Your task to perform on an android device: Search for the best selling jewelry on Etsy. Image 0: 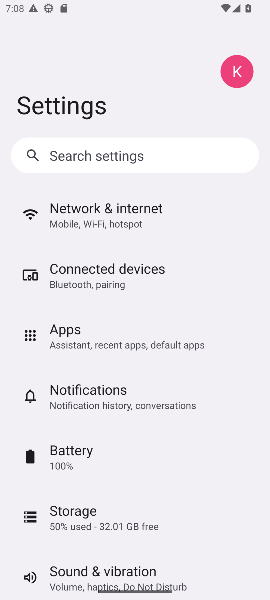
Step 0: press home button
Your task to perform on an android device: Search for the best selling jewelry on Etsy. Image 1: 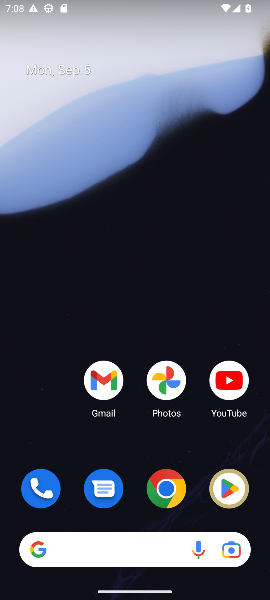
Step 1: click (171, 490)
Your task to perform on an android device: Search for the best selling jewelry on Etsy. Image 2: 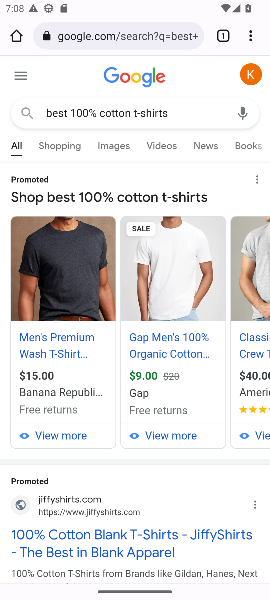
Step 2: click (141, 26)
Your task to perform on an android device: Search for the best selling jewelry on Etsy. Image 3: 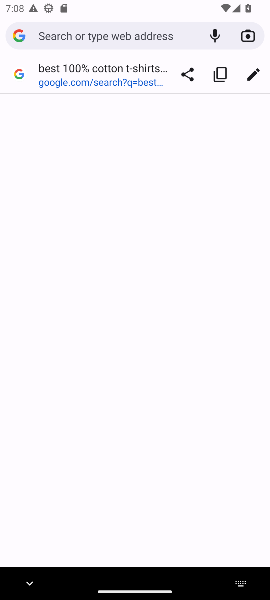
Step 3: type "etsy"
Your task to perform on an android device: Search for the best selling jewelry on Etsy. Image 4: 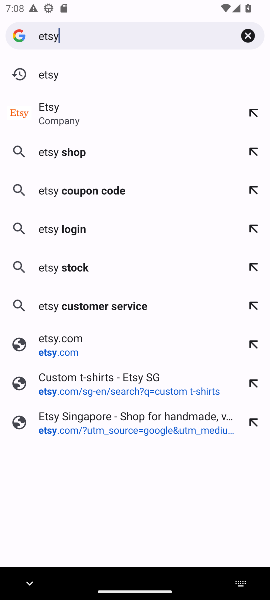
Step 4: press enter
Your task to perform on an android device: Search for the best selling jewelry on Etsy. Image 5: 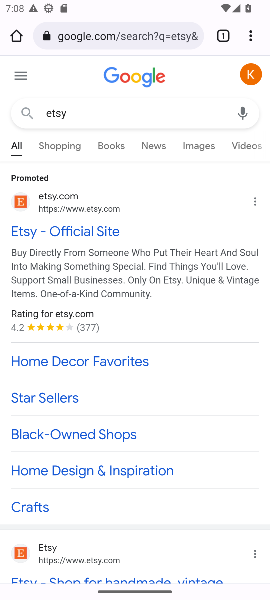
Step 5: click (41, 230)
Your task to perform on an android device: Search for the best selling jewelry on Etsy. Image 6: 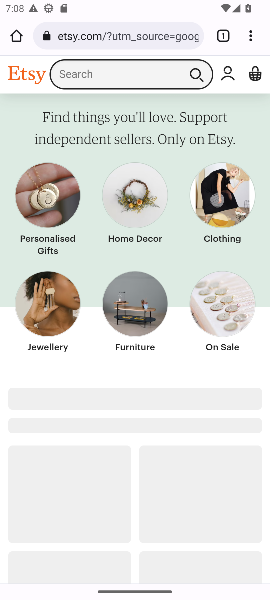
Step 6: click (118, 78)
Your task to perform on an android device: Search for the best selling jewelry on Etsy. Image 7: 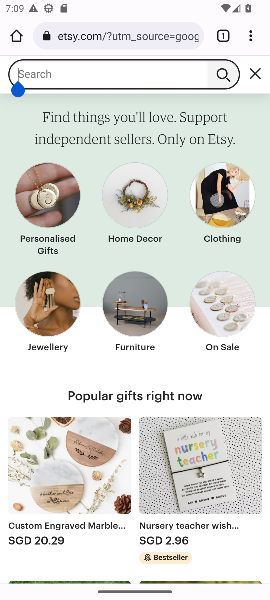
Step 7: type "best selling jewelry"
Your task to perform on an android device: Search for the best selling jewelry on Etsy. Image 8: 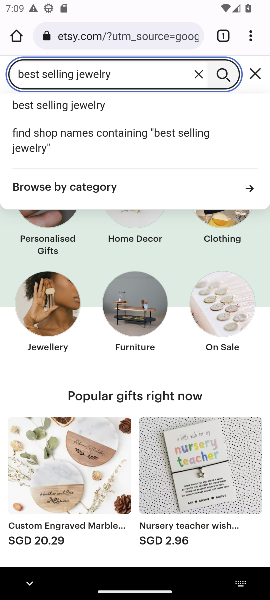
Step 8: press enter
Your task to perform on an android device: Search for the best selling jewelry on Etsy. Image 9: 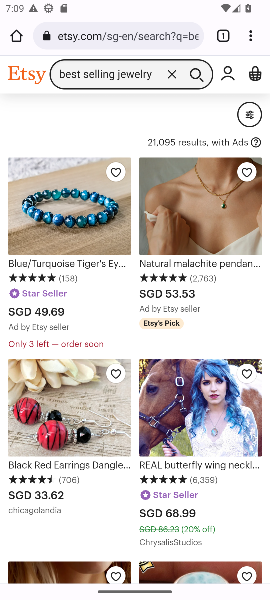
Step 9: click (251, 114)
Your task to perform on an android device: Search for the best selling jewelry on Etsy. Image 10: 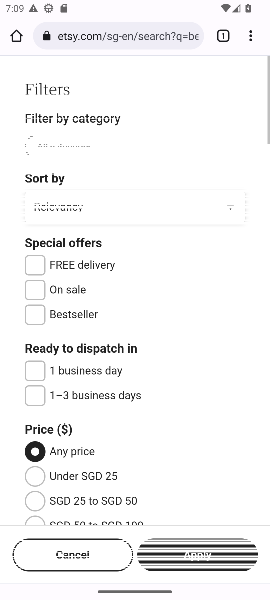
Step 10: drag from (150, 454) to (162, 299)
Your task to perform on an android device: Search for the best selling jewelry on Etsy. Image 11: 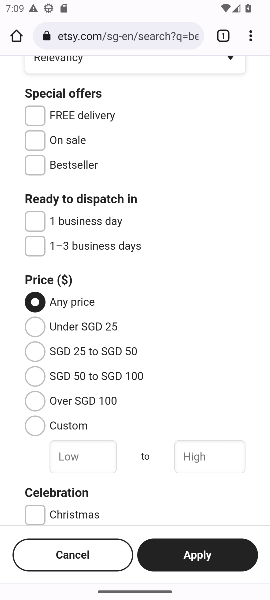
Step 11: click (37, 161)
Your task to perform on an android device: Search for the best selling jewelry on Etsy. Image 12: 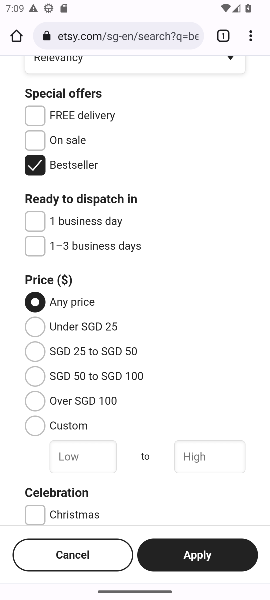
Step 12: click (216, 566)
Your task to perform on an android device: Search for the best selling jewelry on Etsy. Image 13: 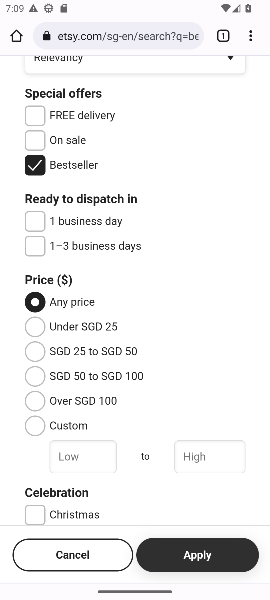
Step 13: click (220, 554)
Your task to perform on an android device: Search for the best selling jewelry on Etsy. Image 14: 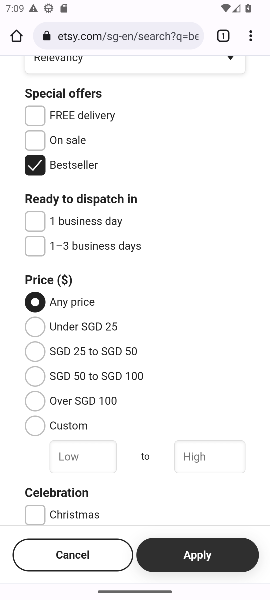
Step 14: click (202, 567)
Your task to perform on an android device: Search for the best selling jewelry on Etsy. Image 15: 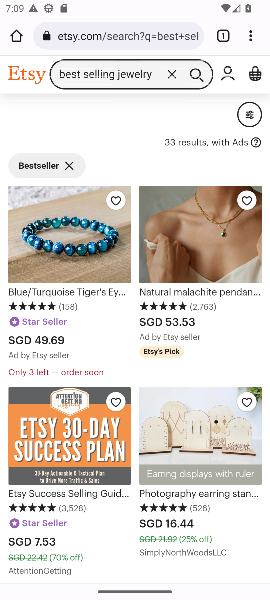
Step 15: task complete